Your task to perform on an android device: Open settings on Google Maps Image 0: 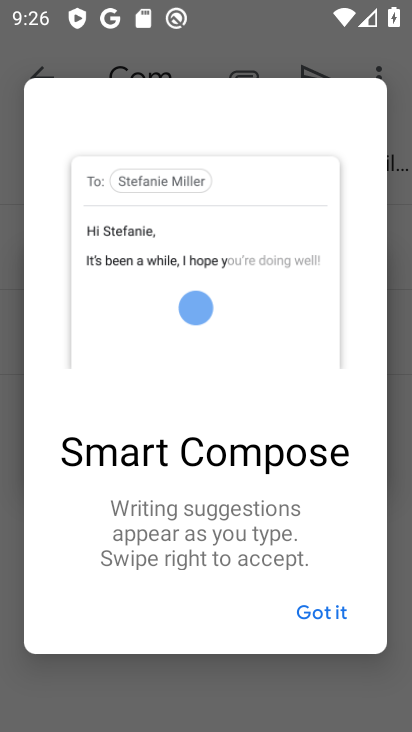
Step 0: press home button
Your task to perform on an android device: Open settings on Google Maps Image 1: 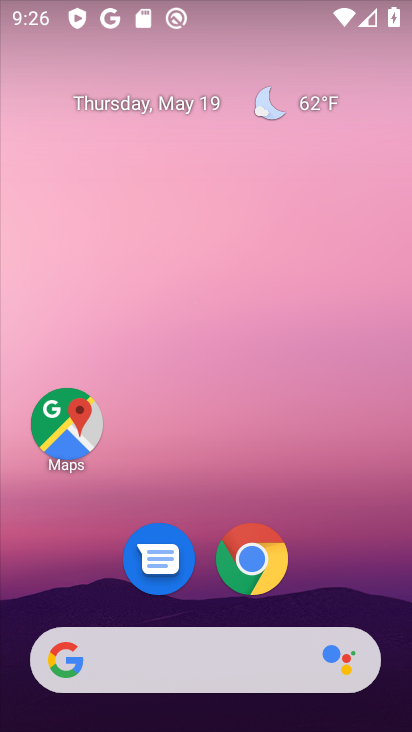
Step 1: click (66, 430)
Your task to perform on an android device: Open settings on Google Maps Image 2: 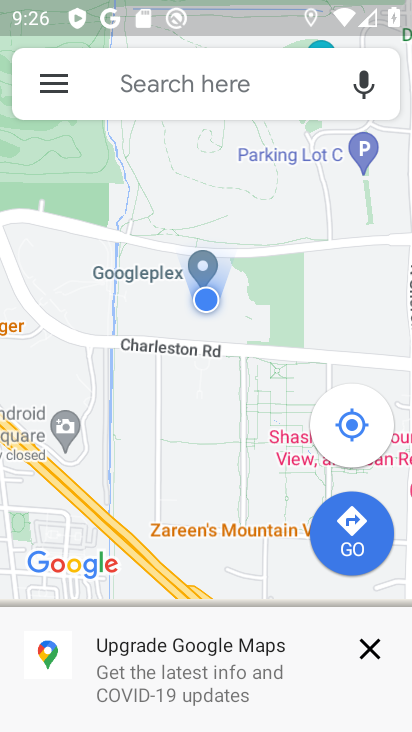
Step 2: task complete